Your task to perform on an android device: What is the recent news? Image 0: 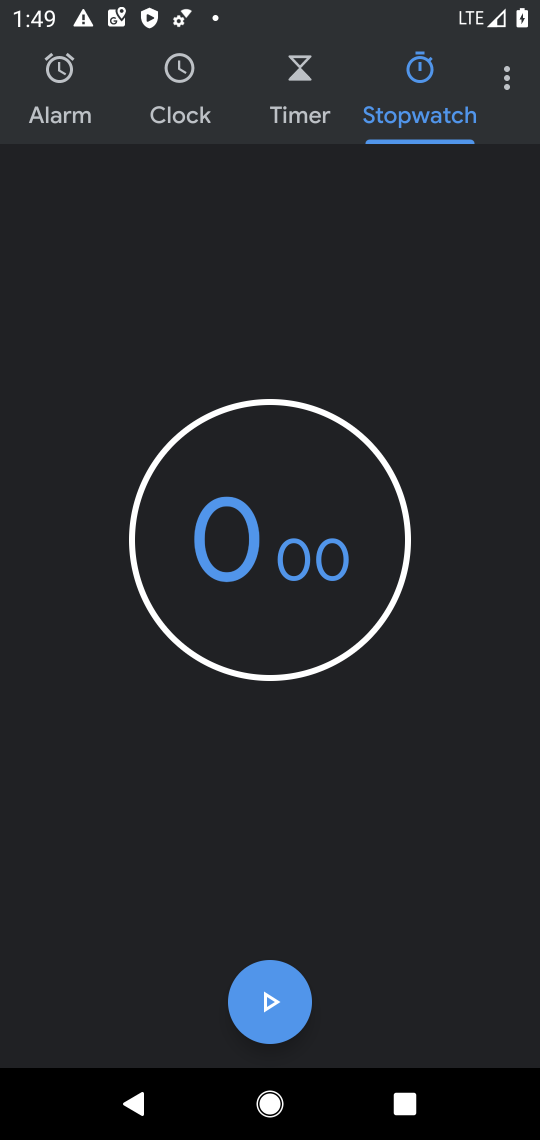
Step 0: press home button
Your task to perform on an android device: What is the recent news? Image 1: 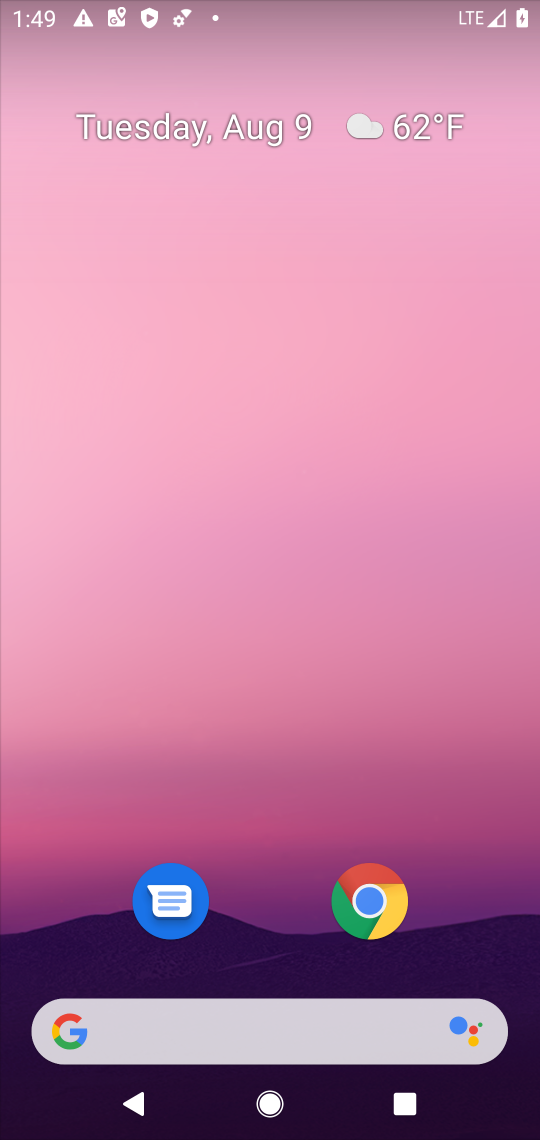
Step 1: task complete